Your task to perform on an android device: delete location history Image 0: 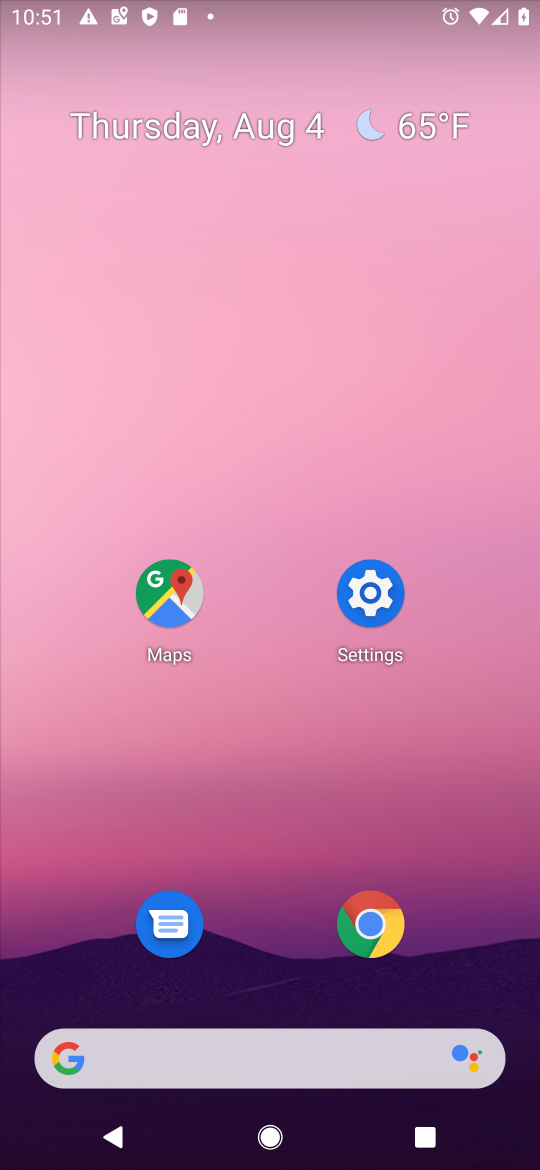
Step 0: click (168, 595)
Your task to perform on an android device: delete location history Image 1: 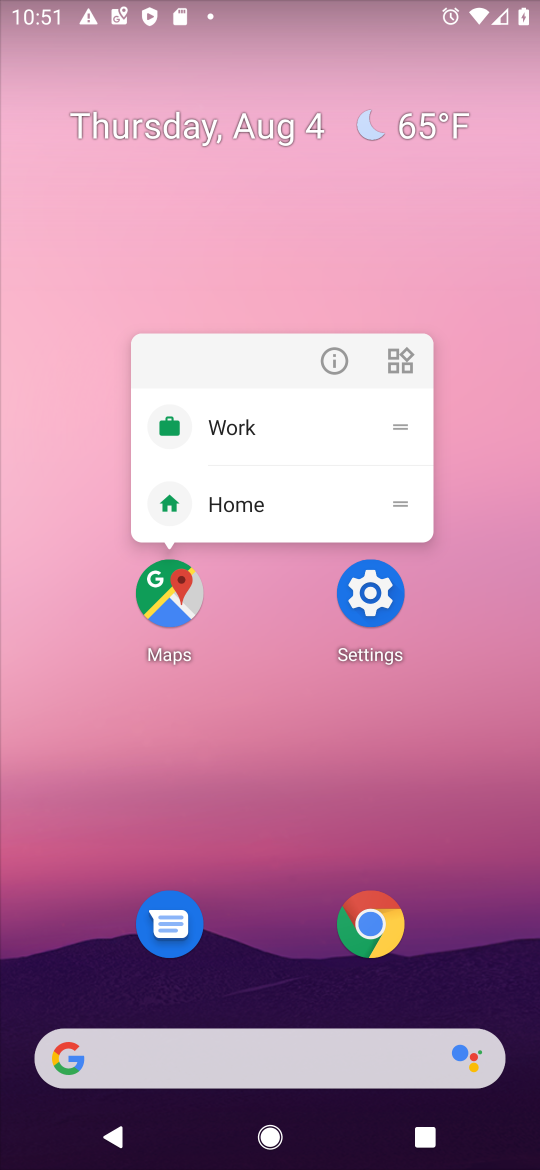
Step 1: click (168, 595)
Your task to perform on an android device: delete location history Image 2: 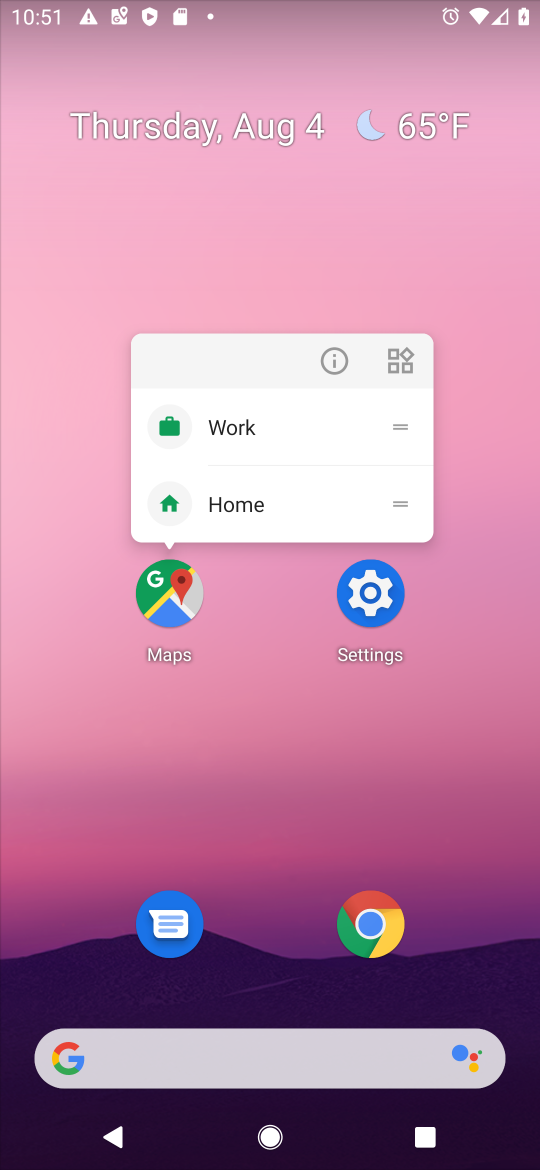
Step 2: click (168, 597)
Your task to perform on an android device: delete location history Image 3: 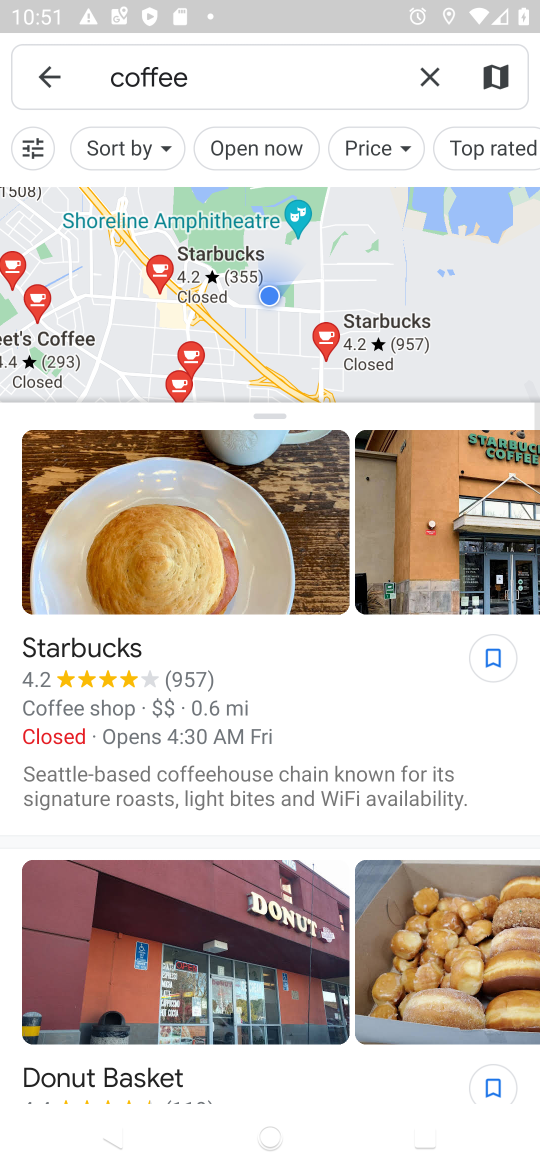
Step 3: click (45, 75)
Your task to perform on an android device: delete location history Image 4: 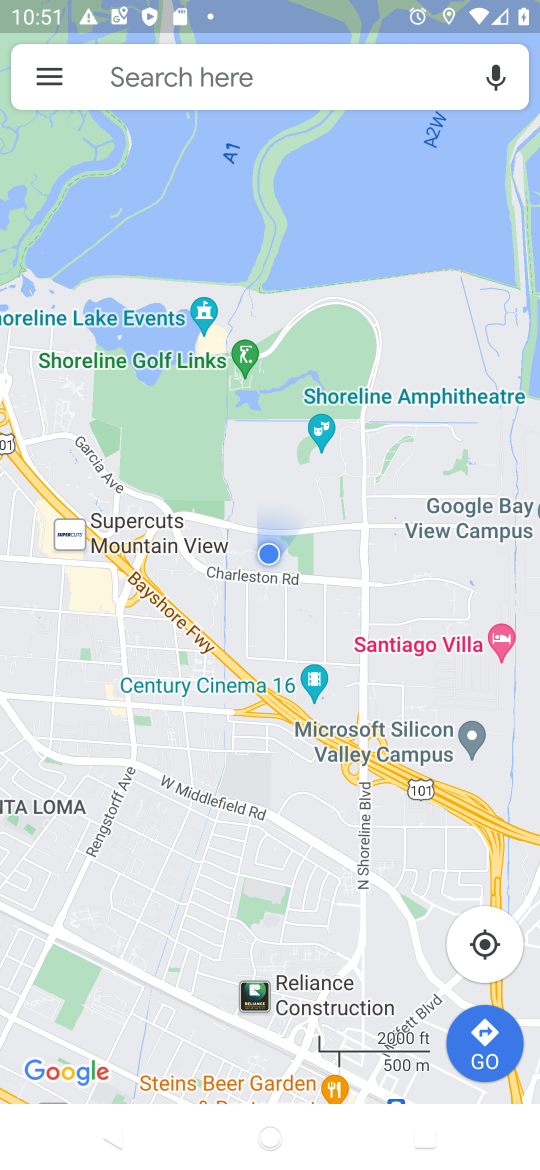
Step 4: click (39, 78)
Your task to perform on an android device: delete location history Image 5: 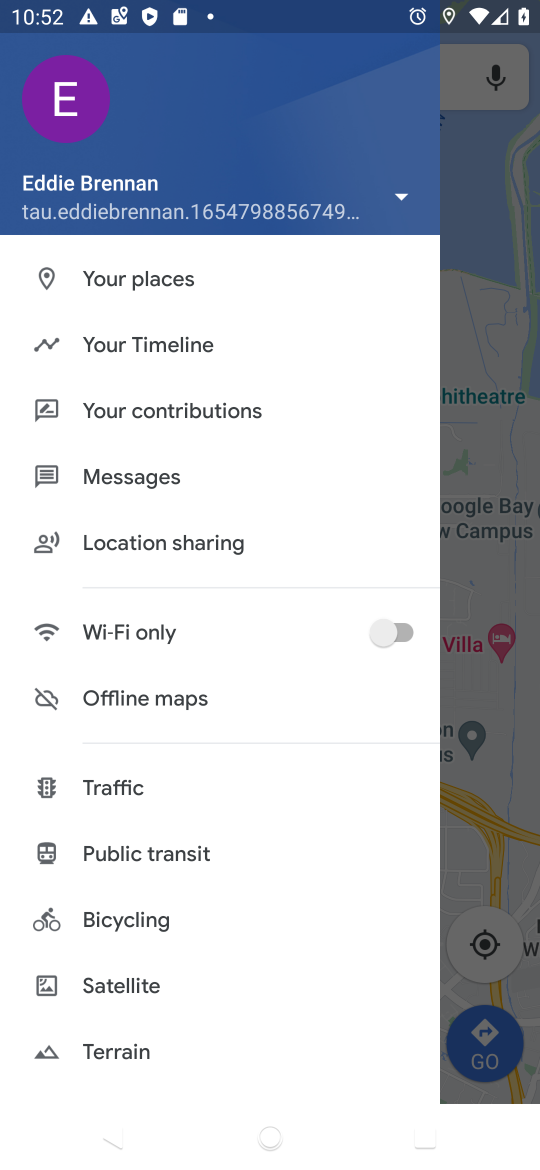
Step 5: click (195, 350)
Your task to perform on an android device: delete location history Image 6: 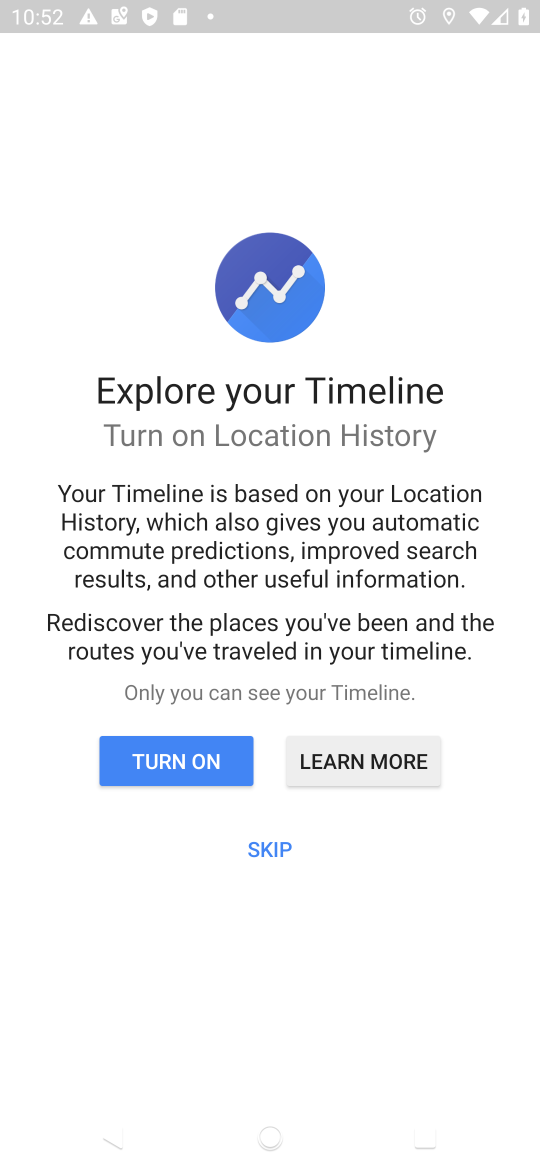
Step 6: click (275, 846)
Your task to perform on an android device: delete location history Image 7: 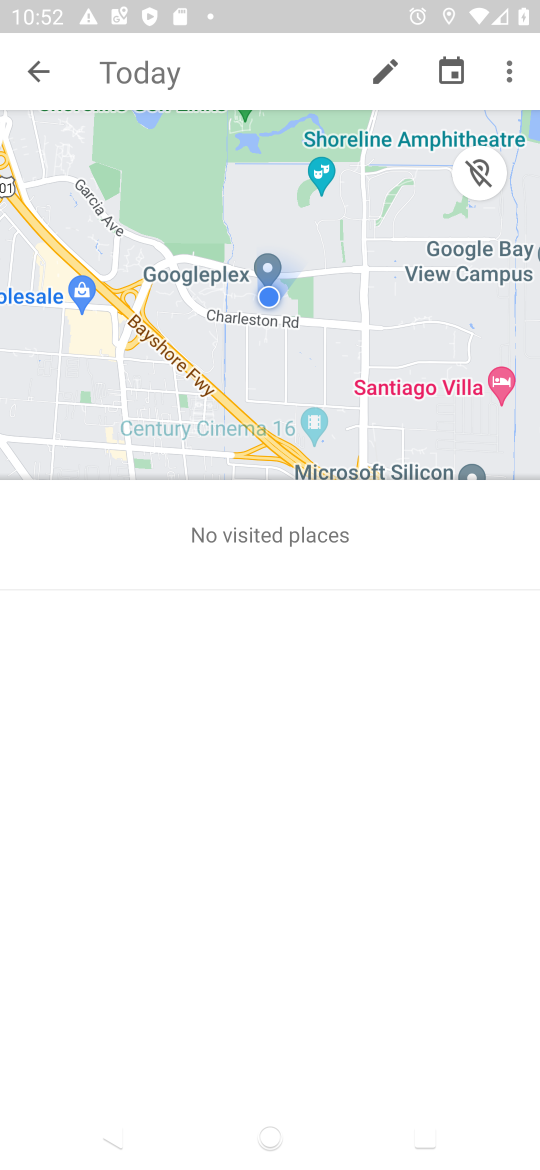
Step 7: click (512, 61)
Your task to perform on an android device: delete location history Image 8: 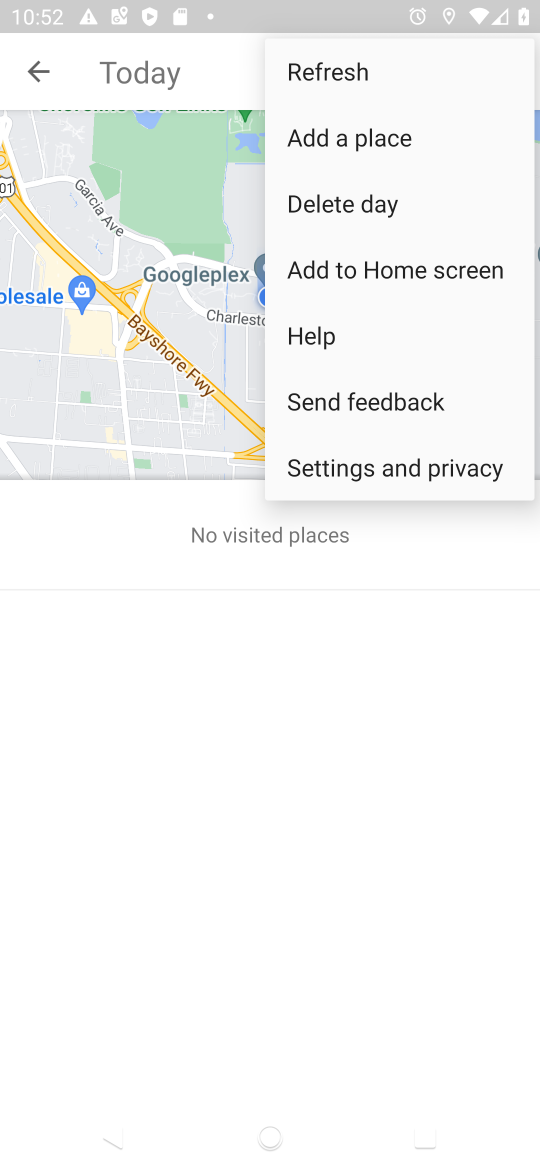
Step 8: click (376, 462)
Your task to perform on an android device: delete location history Image 9: 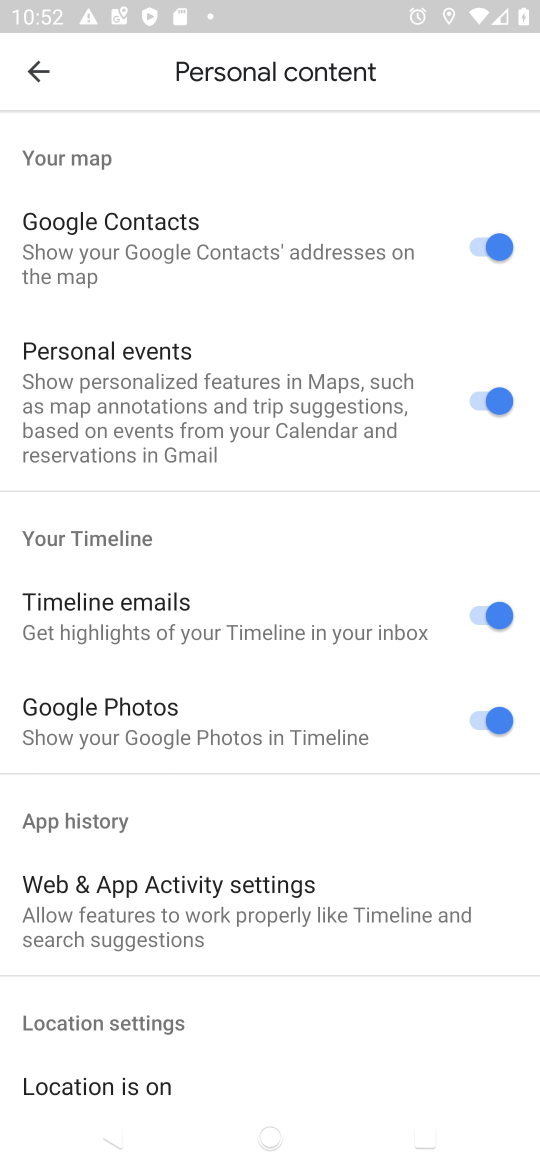
Step 9: drag from (253, 977) to (356, 410)
Your task to perform on an android device: delete location history Image 10: 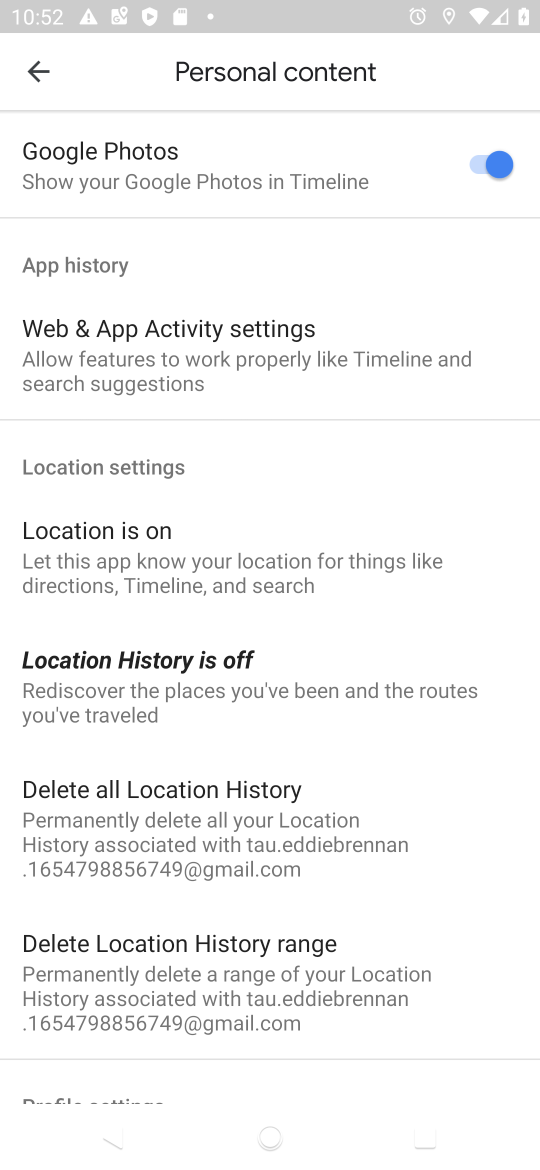
Step 10: click (236, 828)
Your task to perform on an android device: delete location history Image 11: 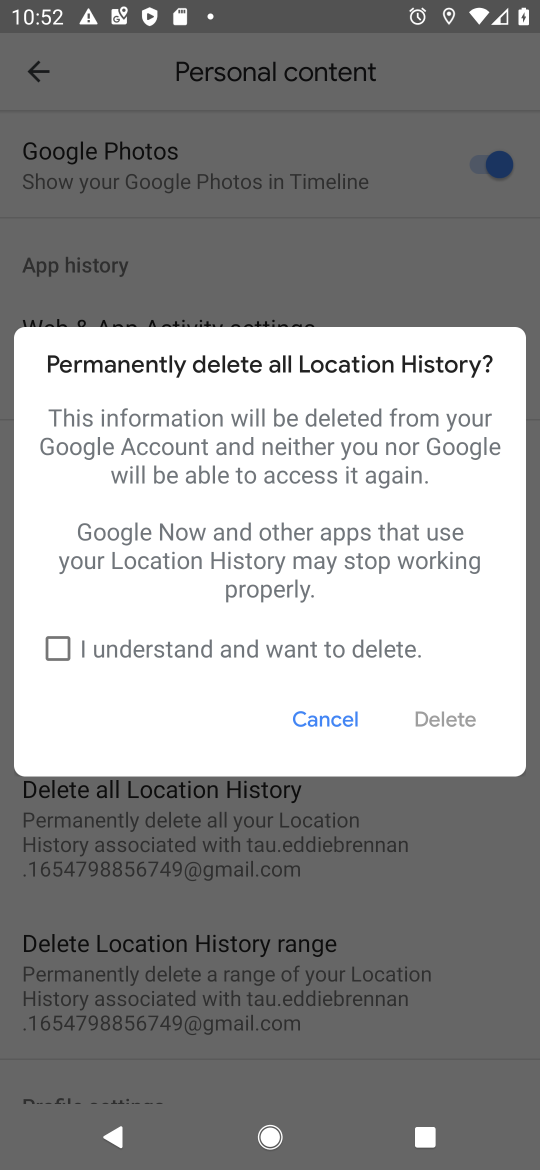
Step 11: click (67, 642)
Your task to perform on an android device: delete location history Image 12: 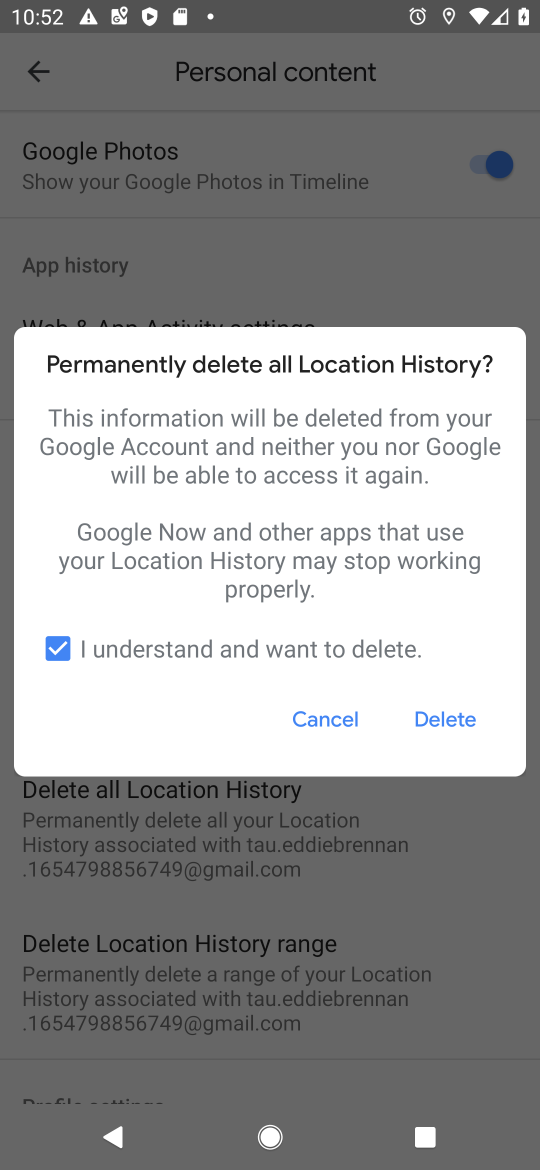
Step 12: click (446, 714)
Your task to perform on an android device: delete location history Image 13: 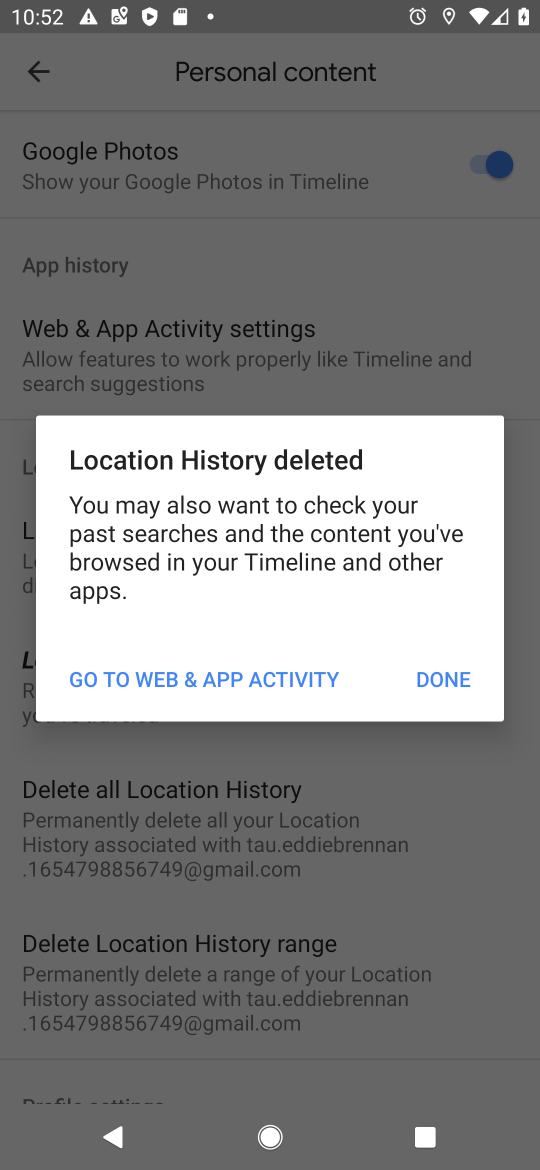
Step 13: click (451, 685)
Your task to perform on an android device: delete location history Image 14: 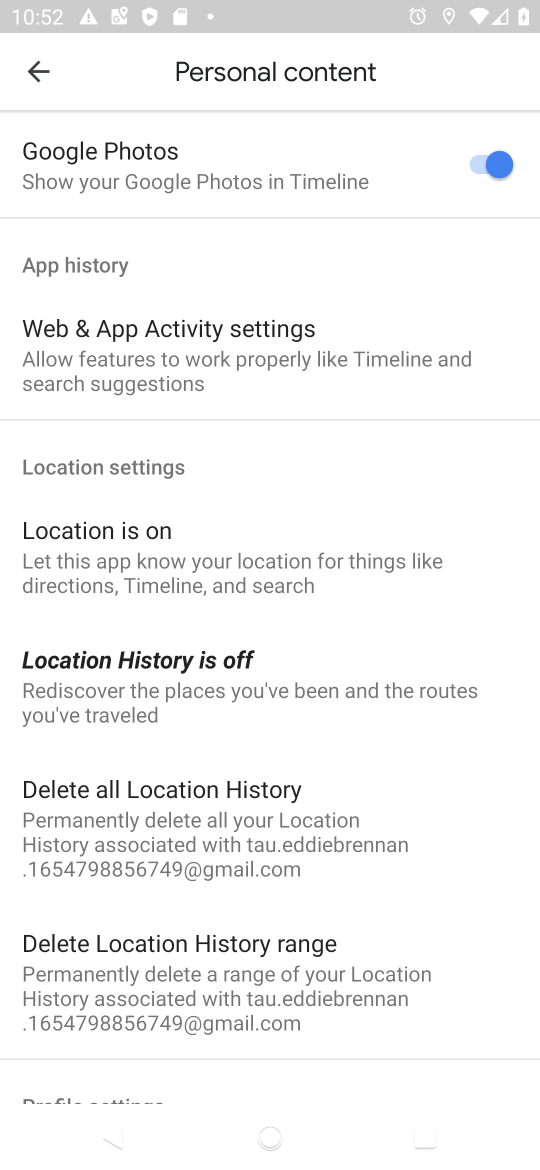
Step 14: task complete